Your task to perform on an android device: toggle notification dots Image 0: 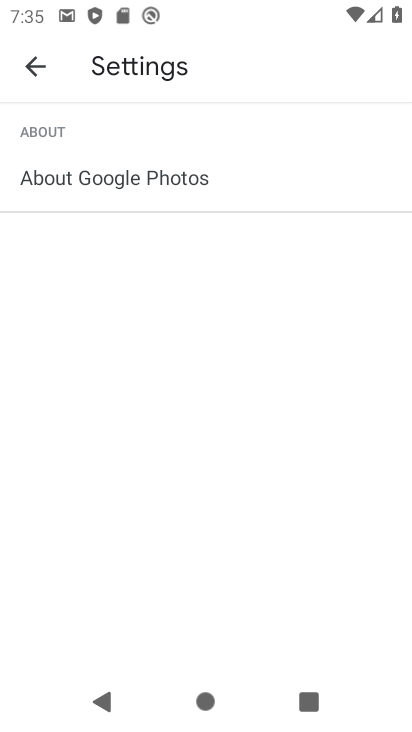
Step 0: press home button
Your task to perform on an android device: toggle notification dots Image 1: 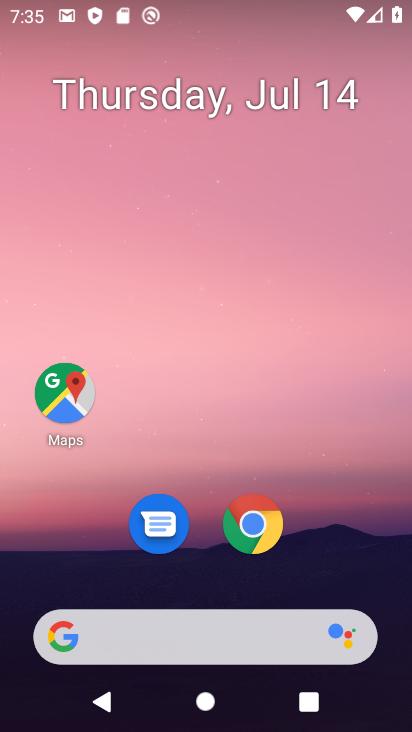
Step 1: drag from (321, 569) to (309, 131)
Your task to perform on an android device: toggle notification dots Image 2: 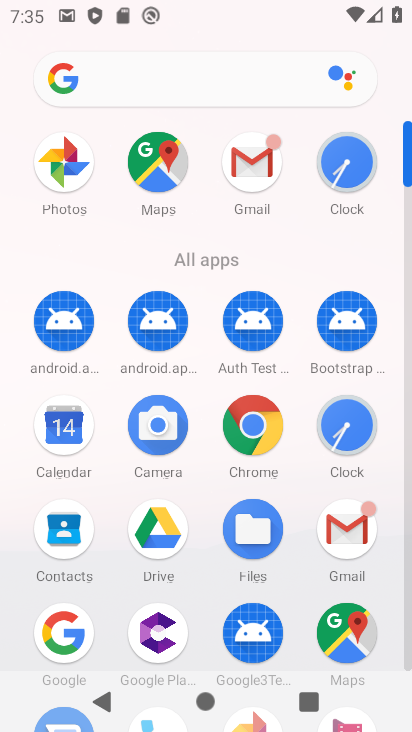
Step 2: drag from (209, 502) to (258, 80)
Your task to perform on an android device: toggle notification dots Image 3: 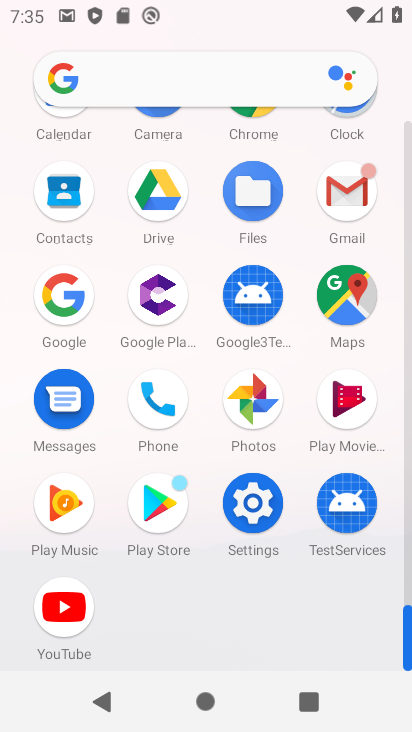
Step 3: click (253, 510)
Your task to perform on an android device: toggle notification dots Image 4: 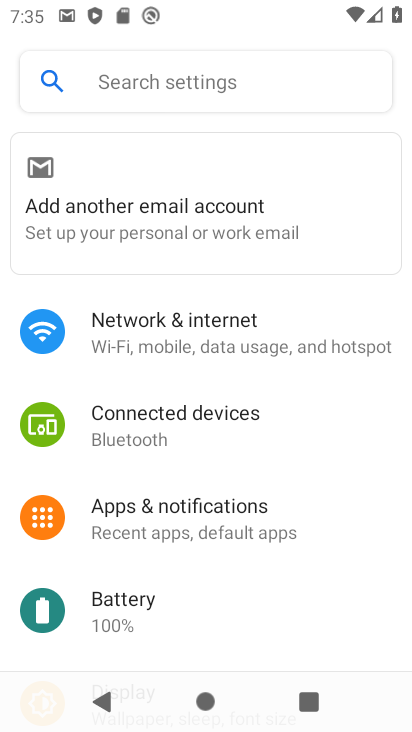
Step 4: click (248, 514)
Your task to perform on an android device: toggle notification dots Image 5: 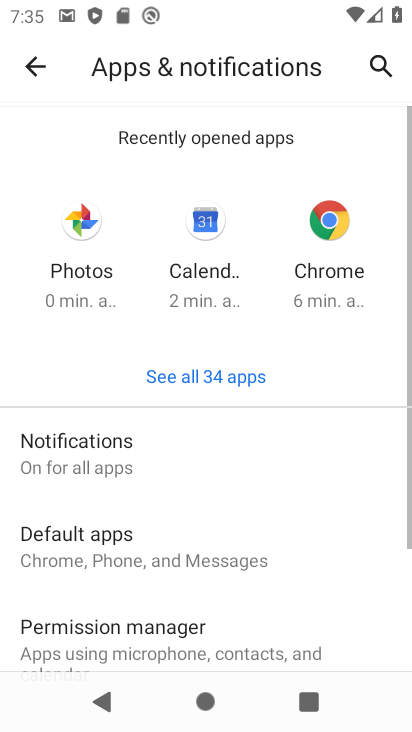
Step 5: click (93, 444)
Your task to perform on an android device: toggle notification dots Image 6: 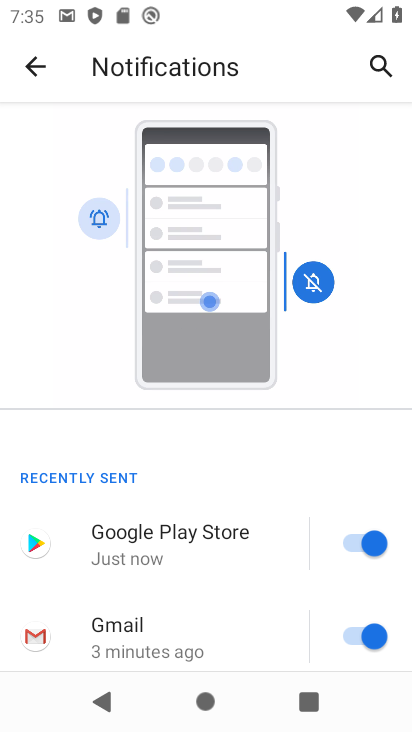
Step 6: drag from (194, 579) to (244, 265)
Your task to perform on an android device: toggle notification dots Image 7: 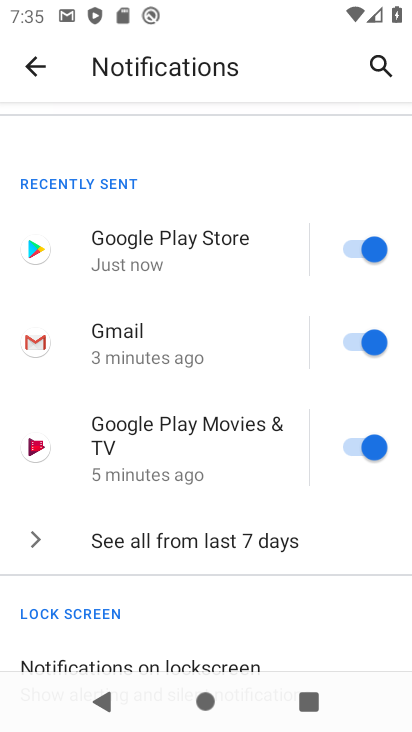
Step 7: drag from (210, 597) to (241, 193)
Your task to perform on an android device: toggle notification dots Image 8: 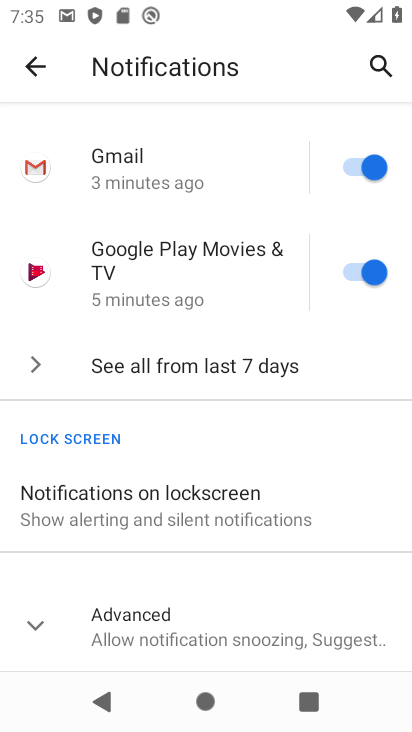
Step 8: click (37, 622)
Your task to perform on an android device: toggle notification dots Image 9: 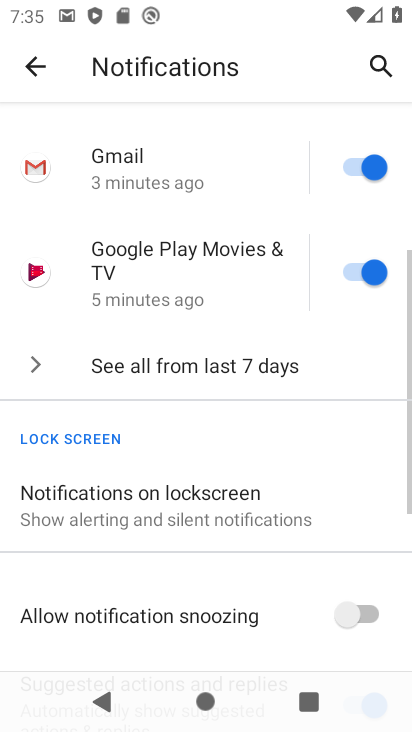
Step 9: drag from (182, 568) to (220, 183)
Your task to perform on an android device: toggle notification dots Image 10: 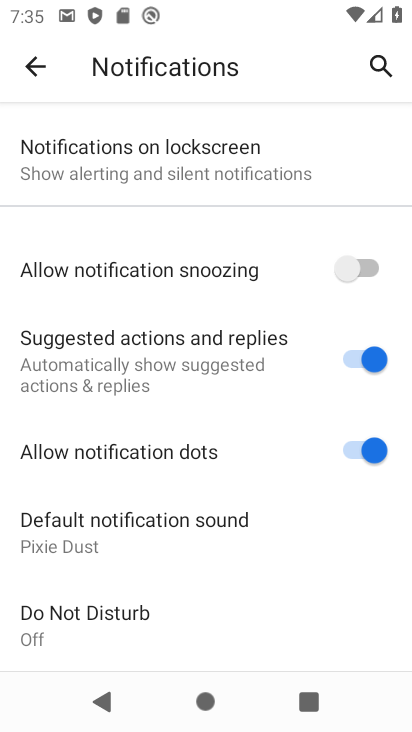
Step 10: click (359, 444)
Your task to perform on an android device: toggle notification dots Image 11: 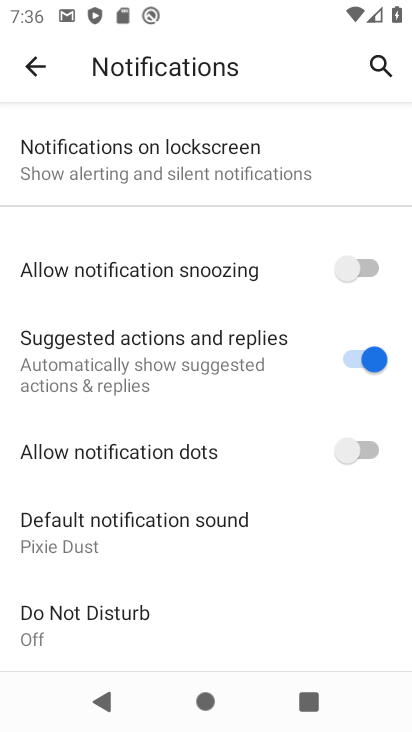
Step 11: task complete